Your task to perform on an android device: change the clock display to show seconds Image 0: 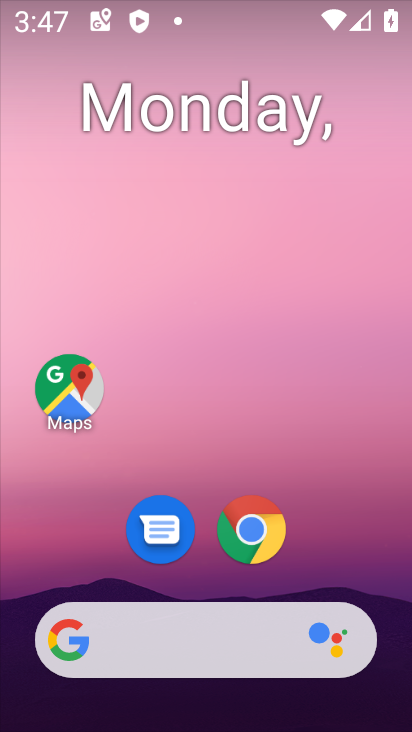
Step 0: drag from (202, 666) to (188, 183)
Your task to perform on an android device: change the clock display to show seconds Image 1: 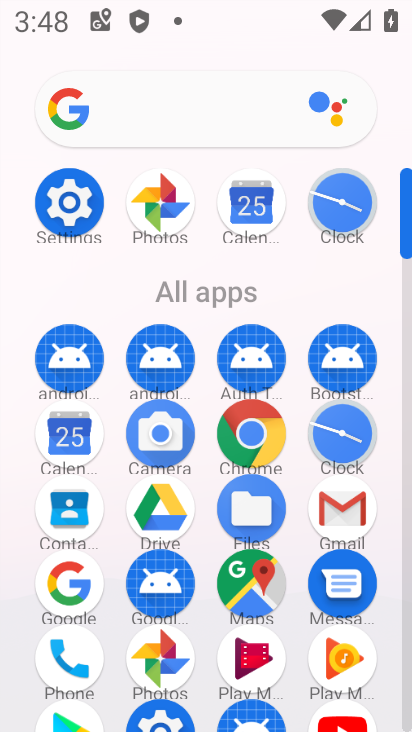
Step 1: click (338, 433)
Your task to perform on an android device: change the clock display to show seconds Image 2: 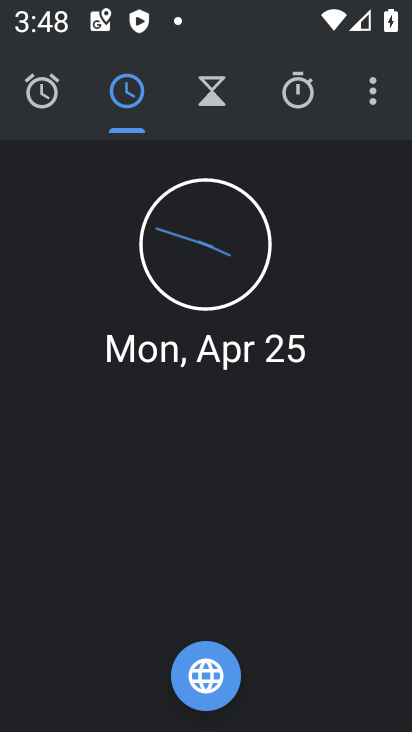
Step 2: click (371, 100)
Your task to perform on an android device: change the clock display to show seconds Image 3: 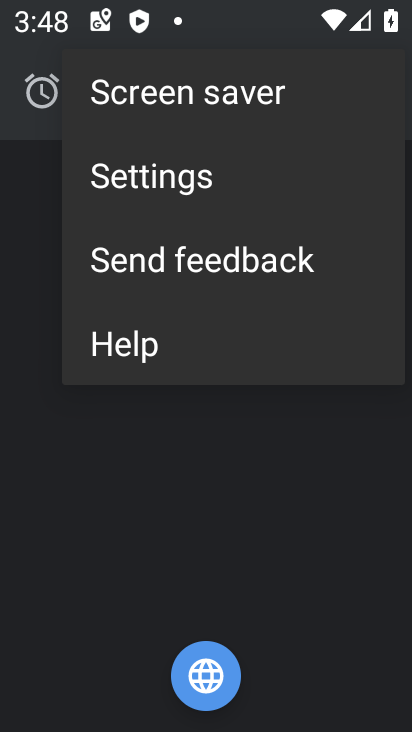
Step 3: click (140, 181)
Your task to perform on an android device: change the clock display to show seconds Image 4: 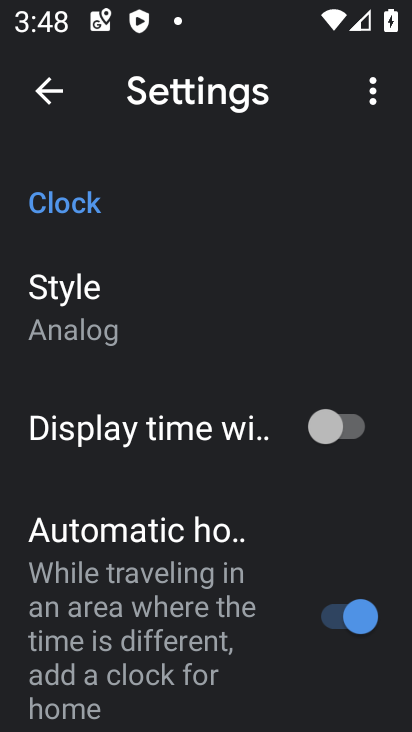
Step 4: click (348, 430)
Your task to perform on an android device: change the clock display to show seconds Image 5: 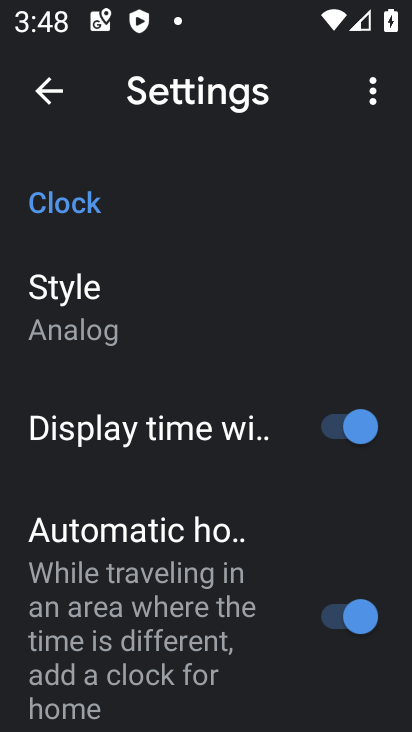
Step 5: task complete